Your task to perform on an android device: turn on javascript in the chrome app Image 0: 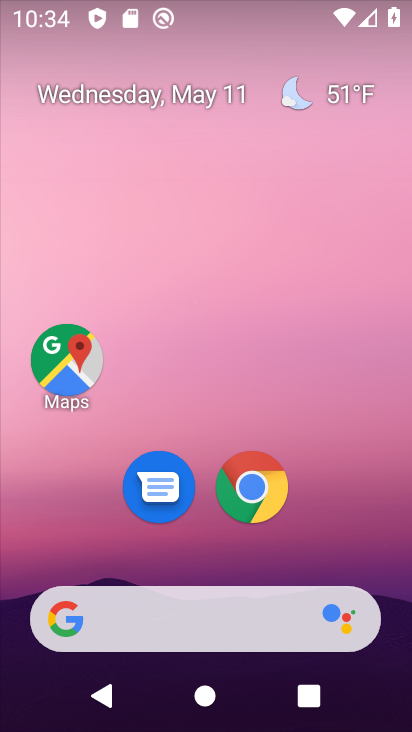
Step 0: click (255, 473)
Your task to perform on an android device: turn on javascript in the chrome app Image 1: 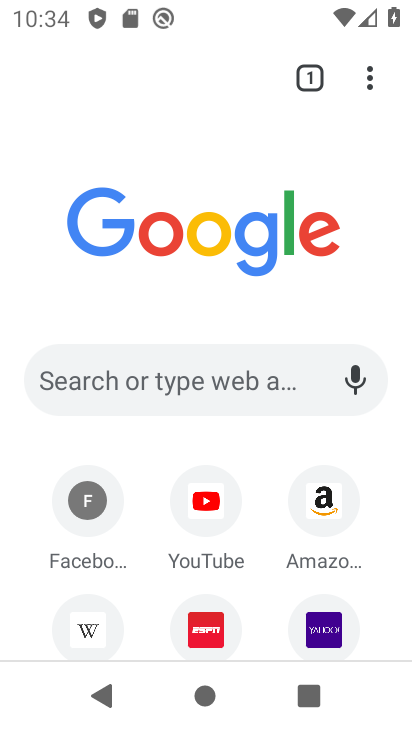
Step 1: click (366, 82)
Your task to perform on an android device: turn on javascript in the chrome app Image 2: 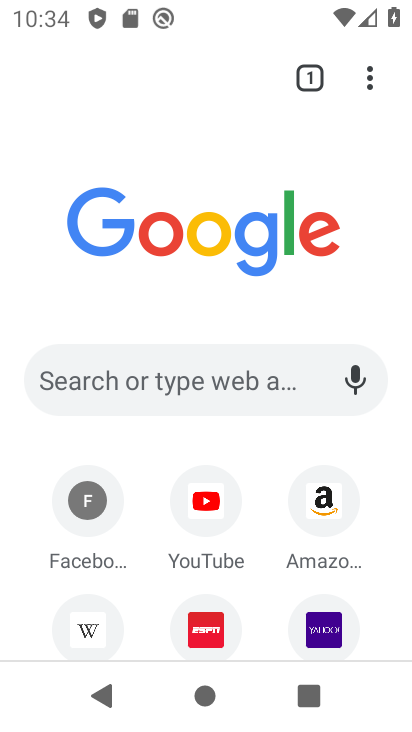
Step 2: drag from (363, 79) to (169, 540)
Your task to perform on an android device: turn on javascript in the chrome app Image 3: 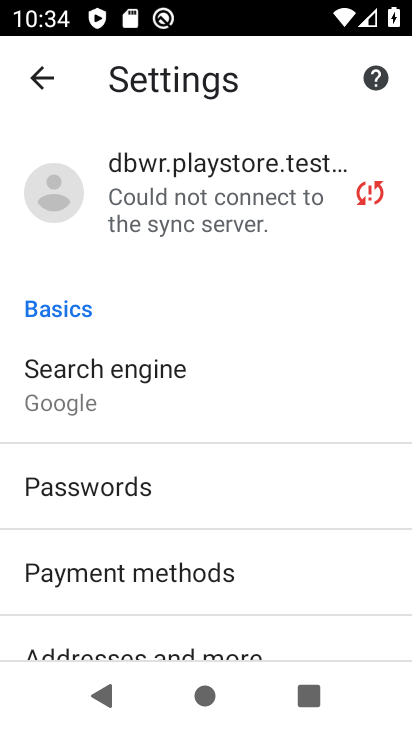
Step 3: drag from (247, 630) to (291, 250)
Your task to perform on an android device: turn on javascript in the chrome app Image 4: 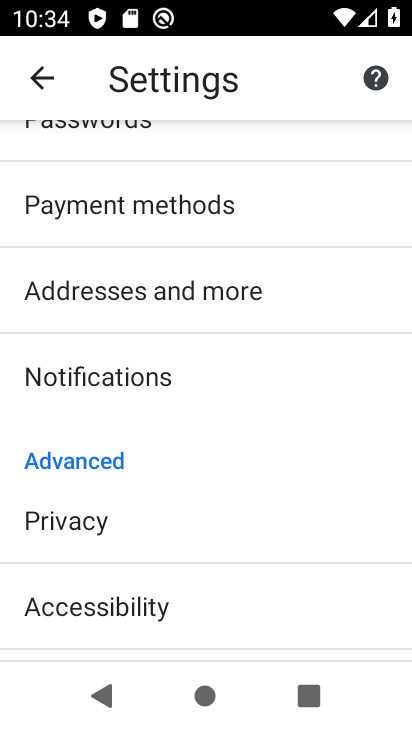
Step 4: drag from (208, 613) to (246, 314)
Your task to perform on an android device: turn on javascript in the chrome app Image 5: 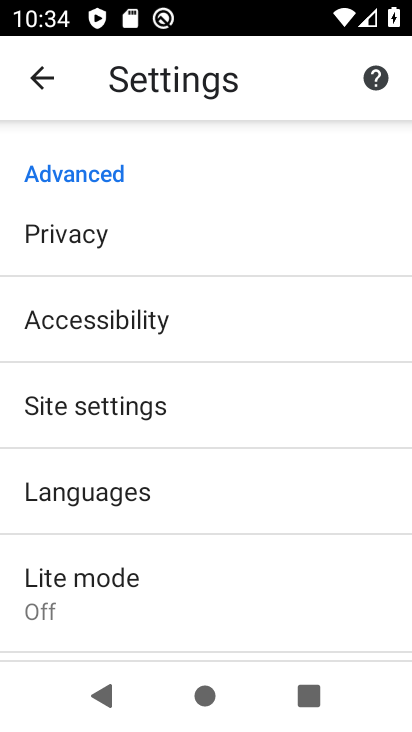
Step 5: click (96, 422)
Your task to perform on an android device: turn on javascript in the chrome app Image 6: 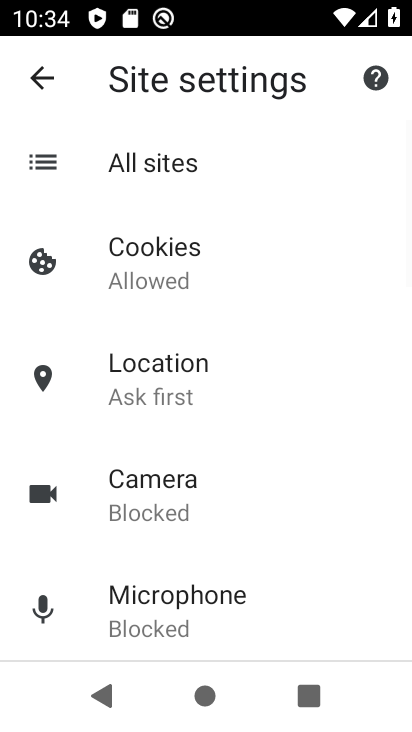
Step 6: drag from (221, 588) to (277, 206)
Your task to perform on an android device: turn on javascript in the chrome app Image 7: 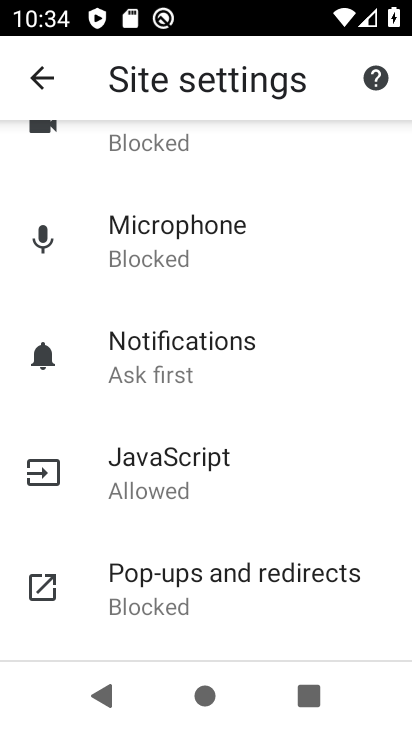
Step 7: click (197, 487)
Your task to perform on an android device: turn on javascript in the chrome app Image 8: 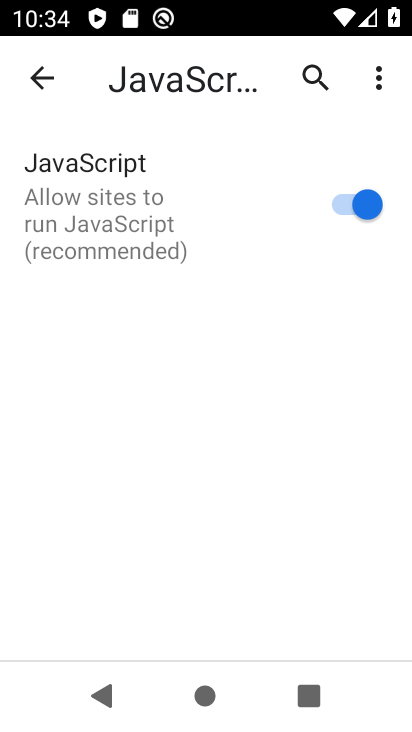
Step 8: task complete